Your task to perform on an android device: delete location history Image 0: 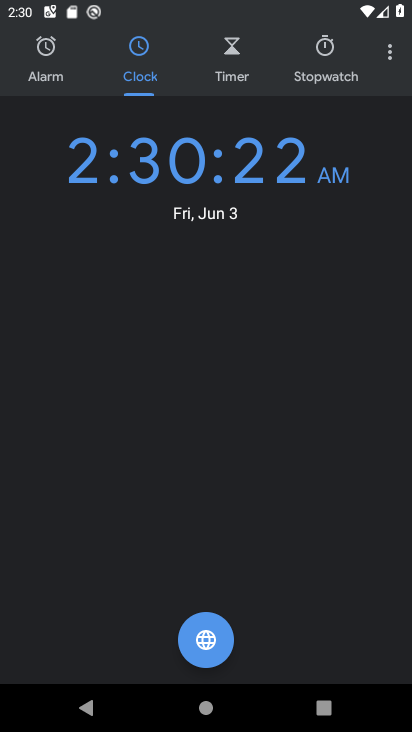
Step 0: press home button
Your task to perform on an android device: delete location history Image 1: 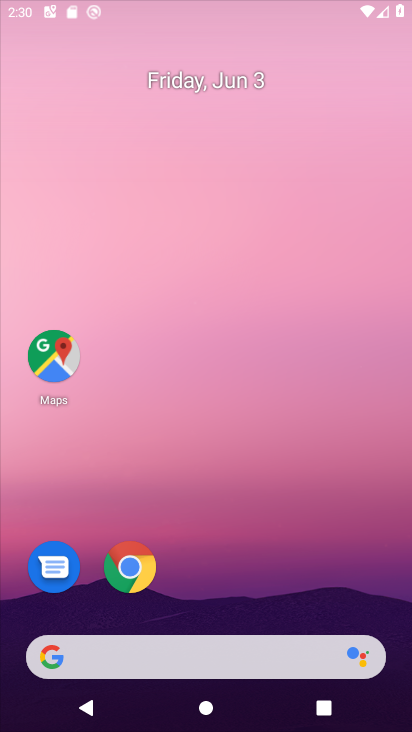
Step 1: drag from (282, 629) to (282, 266)
Your task to perform on an android device: delete location history Image 2: 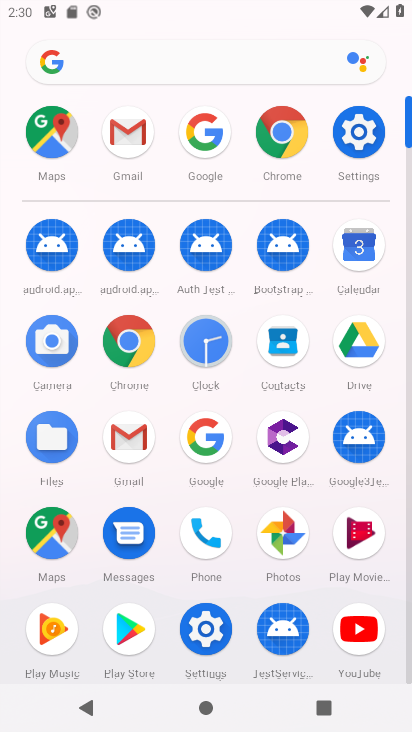
Step 2: click (134, 330)
Your task to perform on an android device: delete location history Image 3: 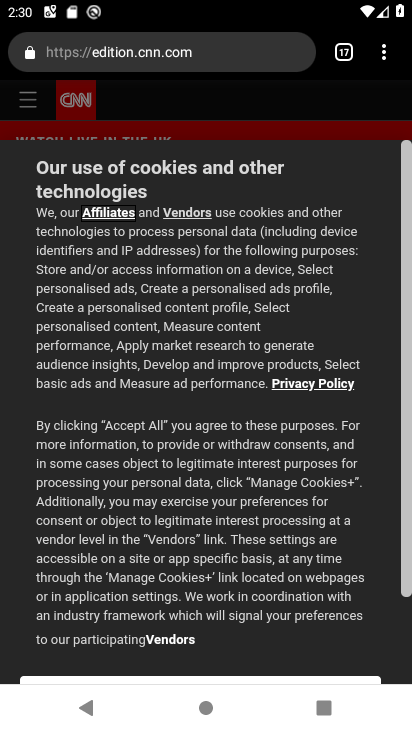
Step 3: press home button
Your task to perform on an android device: delete location history Image 4: 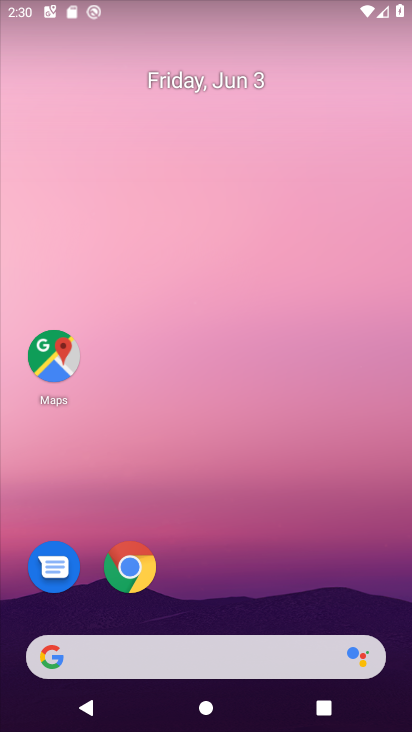
Step 4: click (59, 339)
Your task to perform on an android device: delete location history Image 5: 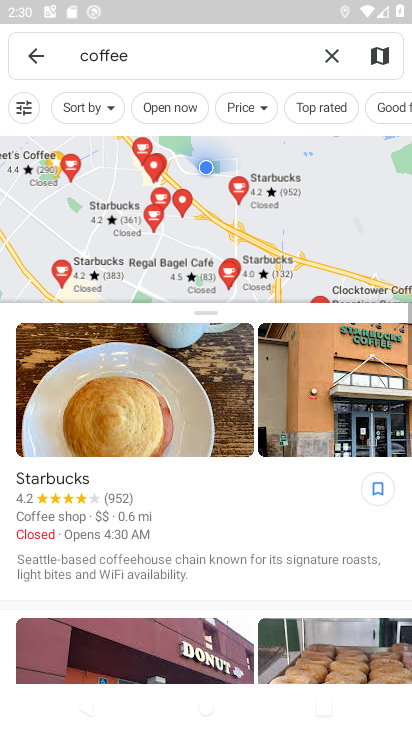
Step 5: click (330, 54)
Your task to perform on an android device: delete location history Image 6: 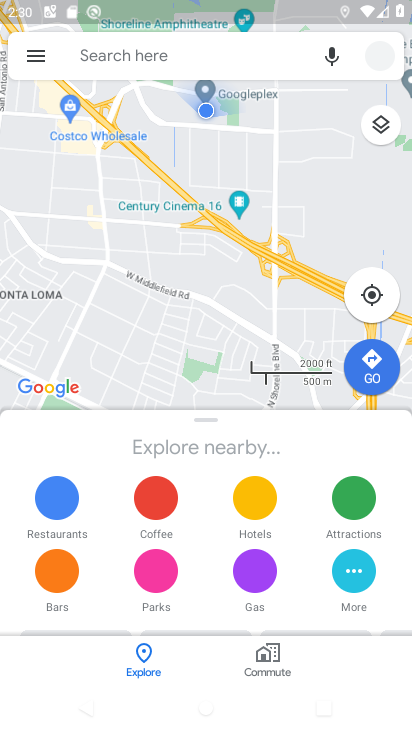
Step 6: click (31, 49)
Your task to perform on an android device: delete location history Image 7: 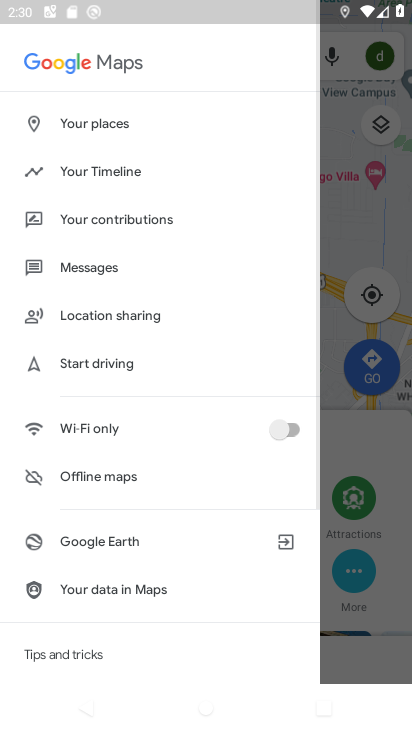
Step 7: drag from (124, 571) to (150, 205)
Your task to perform on an android device: delete location history Image 8: 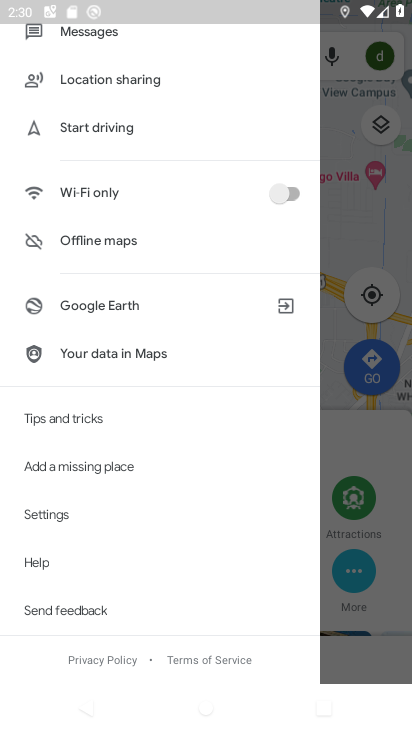
Step 8: drag from (132, 49) to (139, 512)
Your task to perform on an android device: delete location history Image 9: 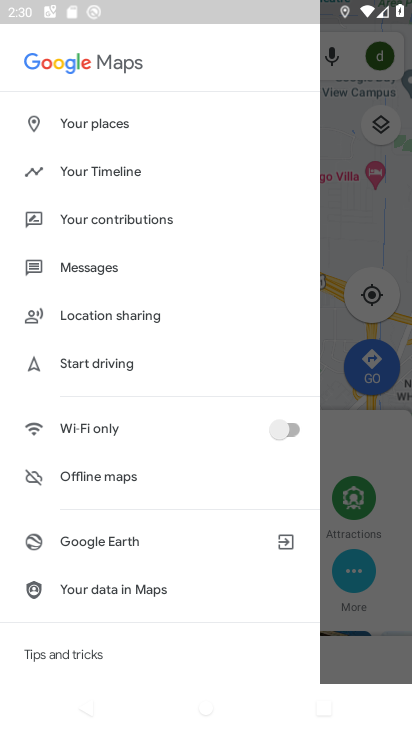
Step 9: click (107, 161)
Your task to perform on an android device: delete location history Image 10: 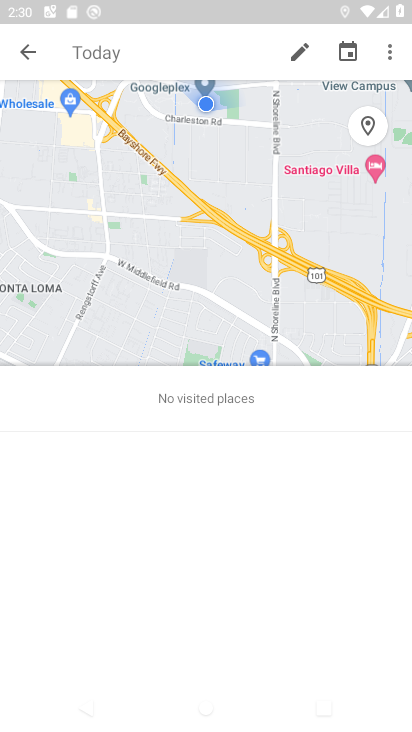
Step 10: click (383, 46)
Your task to perform on an android device: delete location history Image 11: 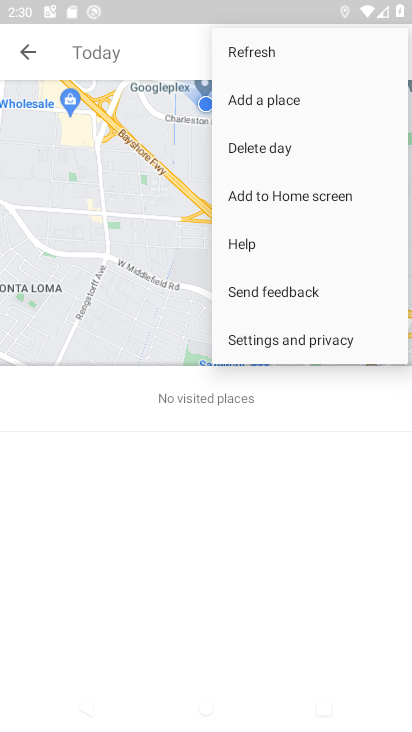
Step 11: click (274, 341)
Your task to perform on an android device: delete location history Image 12: 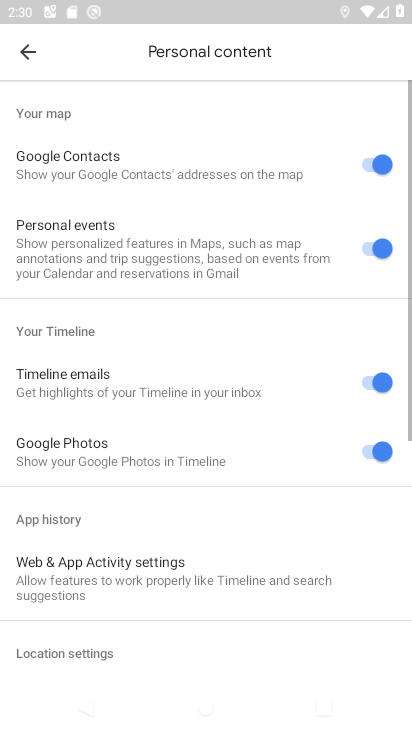
Step 12: drag from (153, 518) to (235, 154)
Your task to perform on an android device: delete location history Image 13: 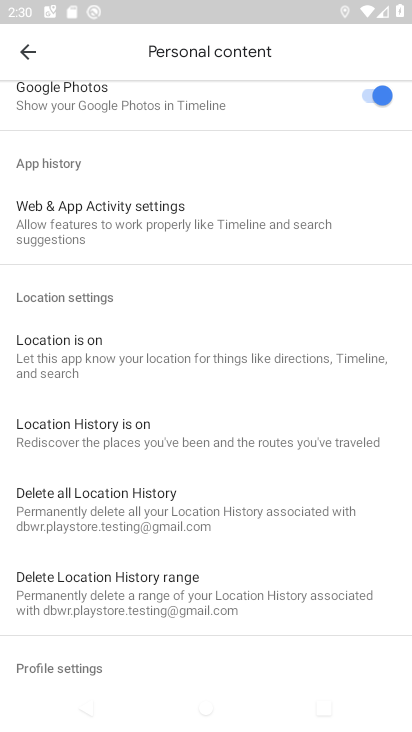
Step 13: click (152, 498)
Your task to perform on an android device: delete location history Image 14: 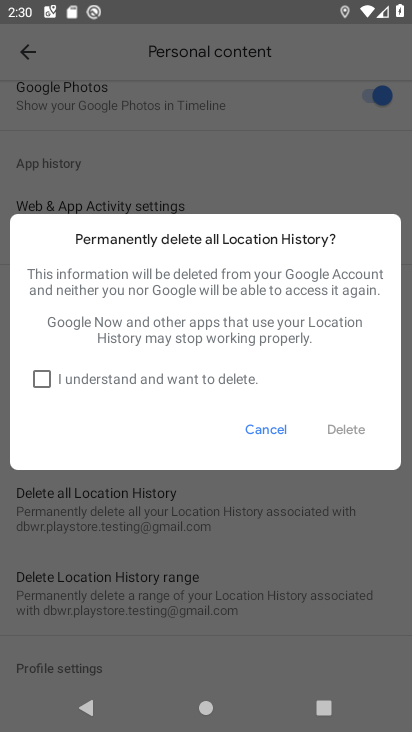
Step 14: click (20, 375)
Your task to perform on an android device: delete location history Image 15: 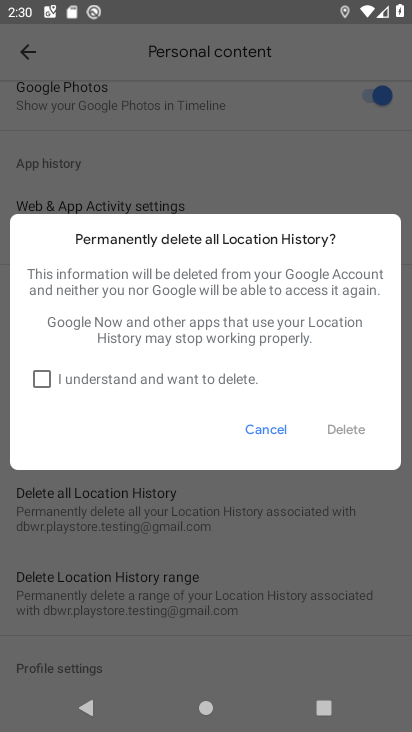
Step 15: click (39, 379)
Your task to perform on an android device: delete location history Image 16: 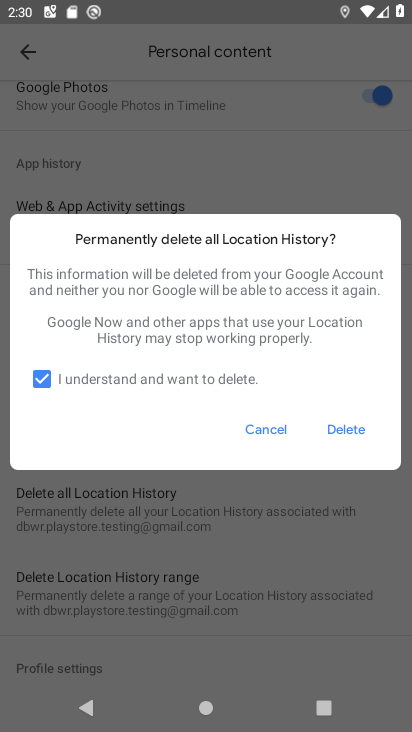
Step 16: click (341, 430)
Your task to perform on an android device: delete location history Image 17: 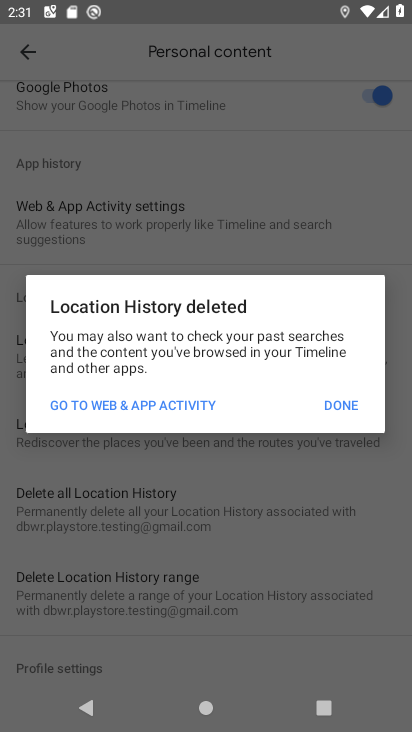
Step 17: task complete